Your task to perform on an android device: open app "Viber Messenger" Image 0: 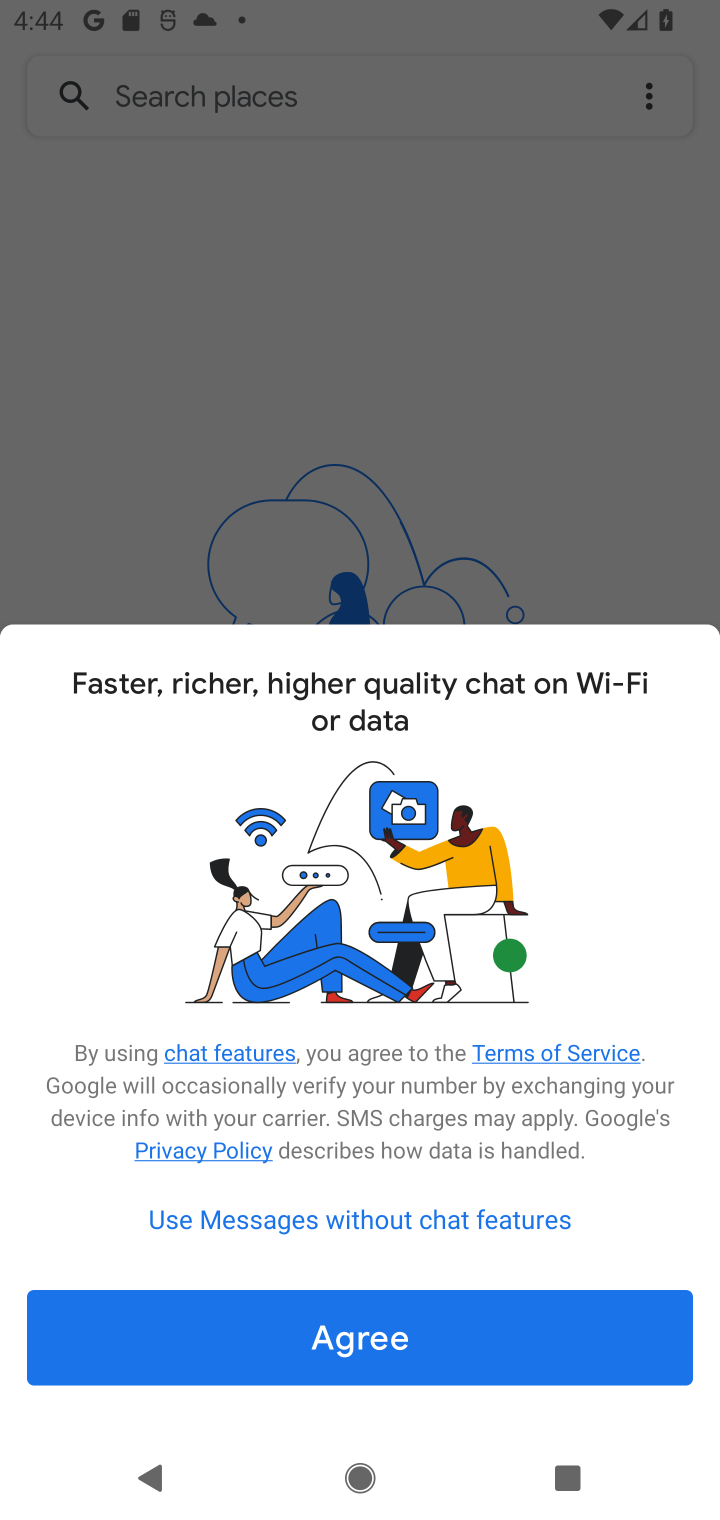
Step 0: press home button
Your task to perform on an android device: open app "Viber Messenger" Image 1: 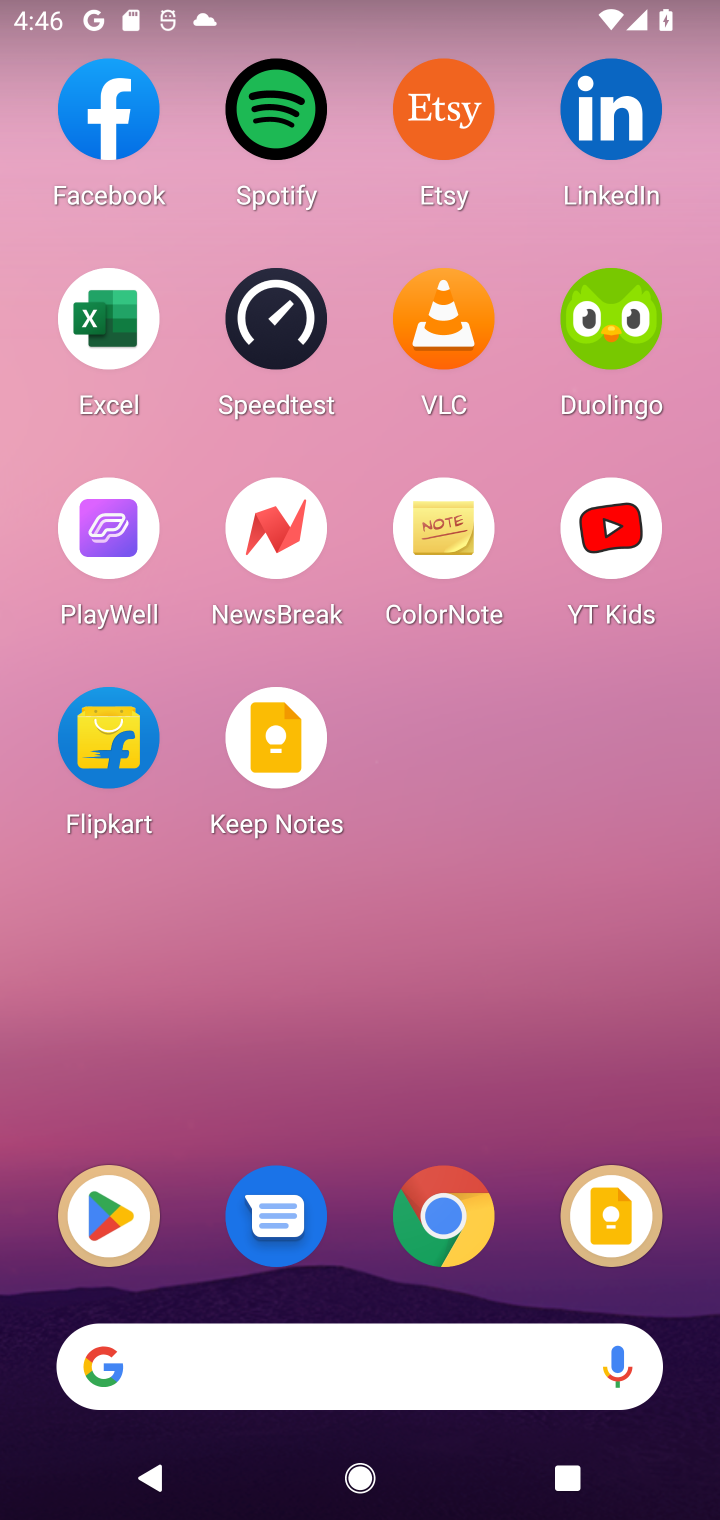
Step 1: click (73, 1242)
Your task to perform on an android device: open app "Viber Messenger" Image 2: 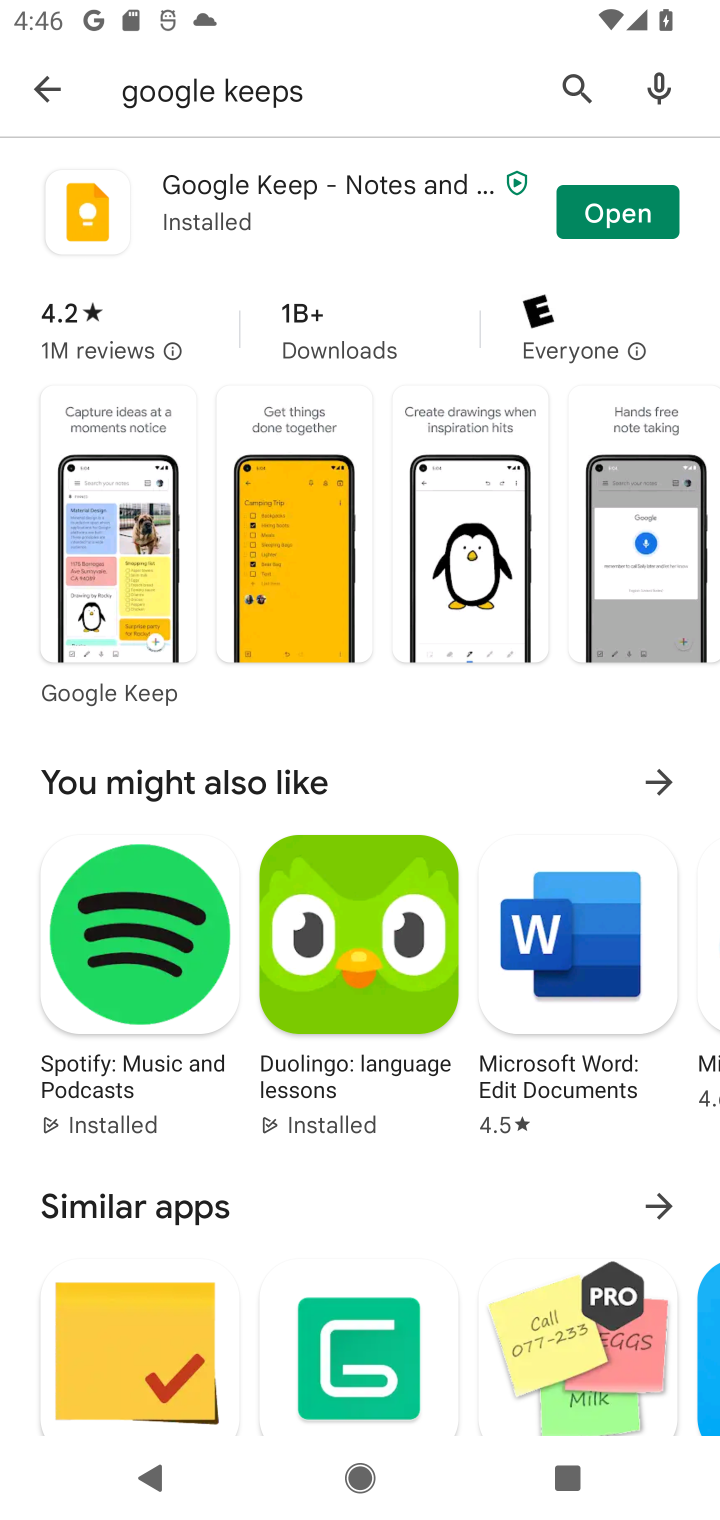
Step 2: click (551, 66)
Your task to perform on an android device: open app "Viber Messenger" Image 3: 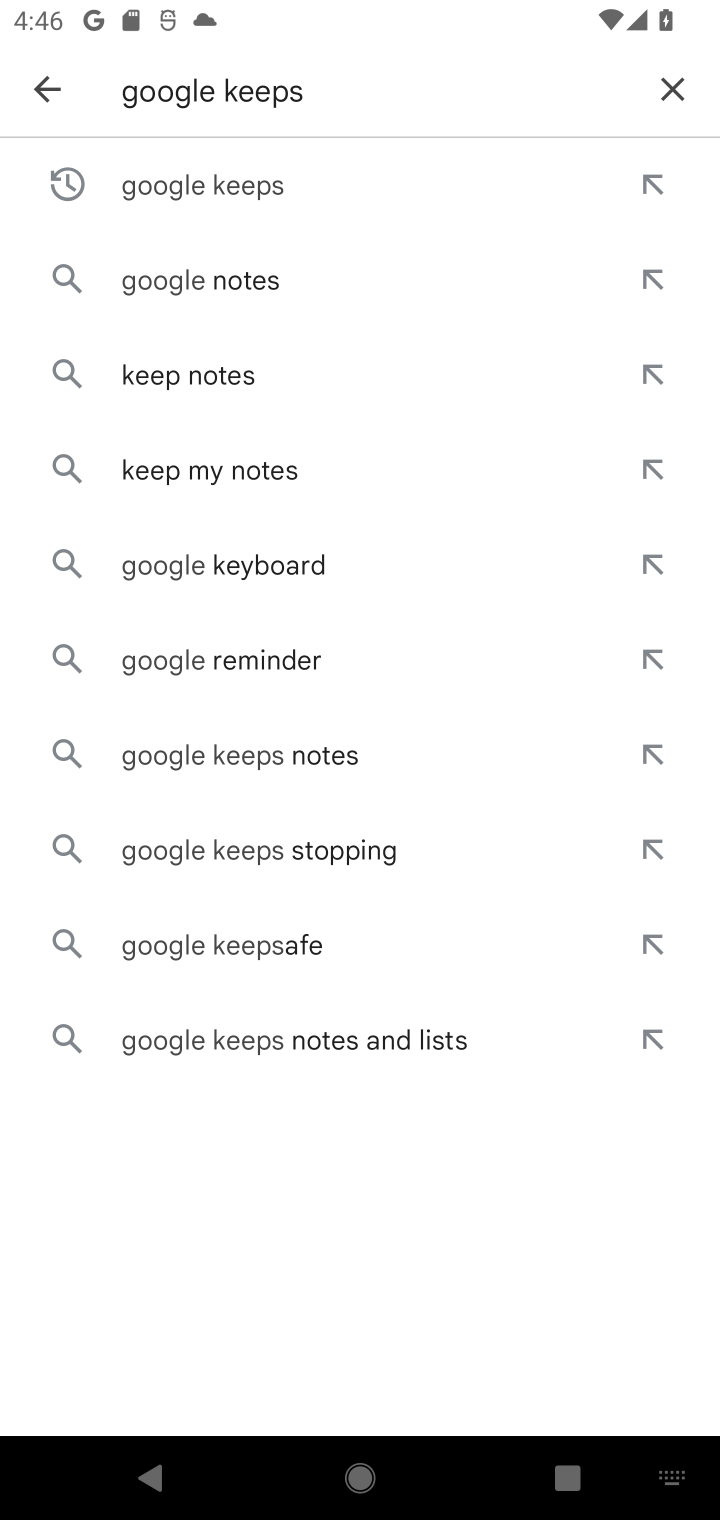
Step 3: click (677, 74)
Your task to perform on an android device: open app "Viber Messenger" Image 4: 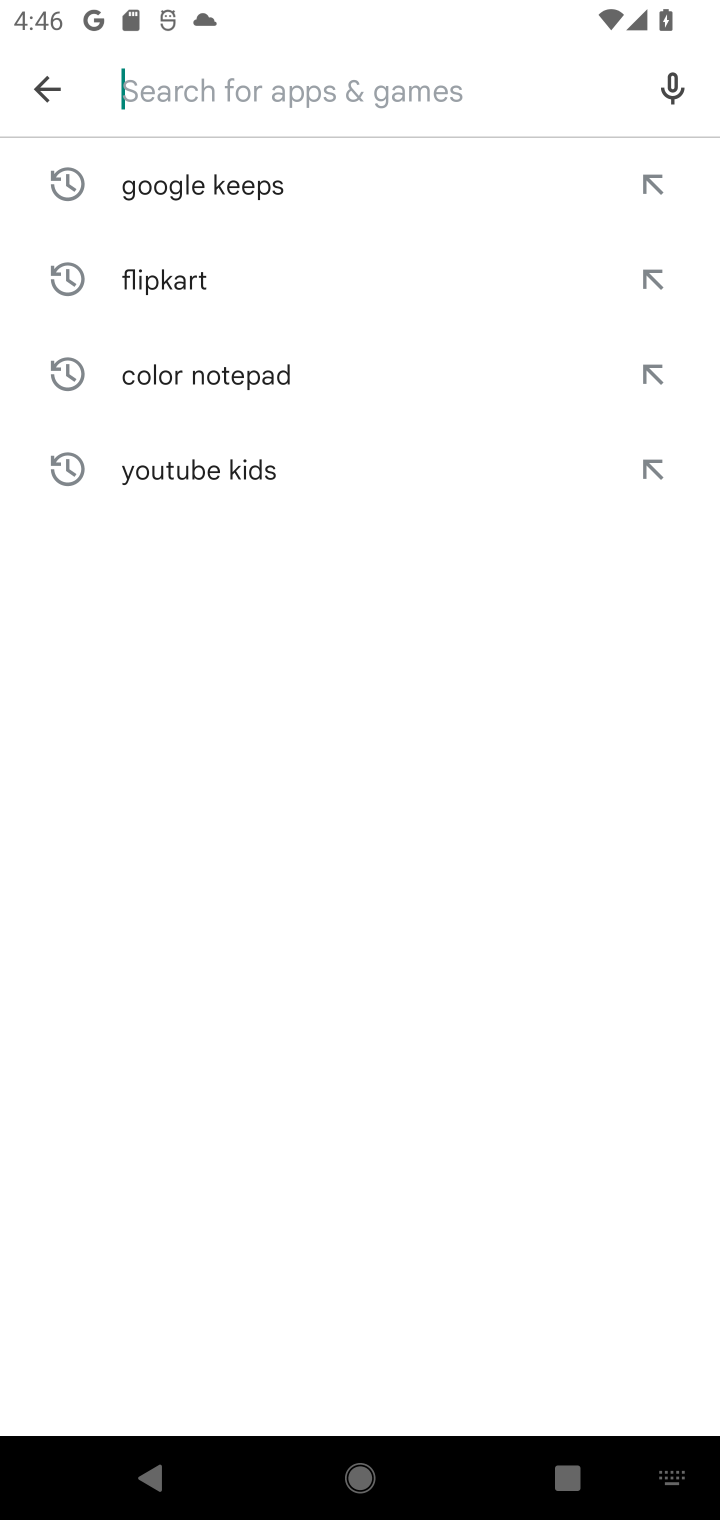
Step 4: type "viber"
Your task to perform on an android device: open app "Viber Messenger" Image 5: 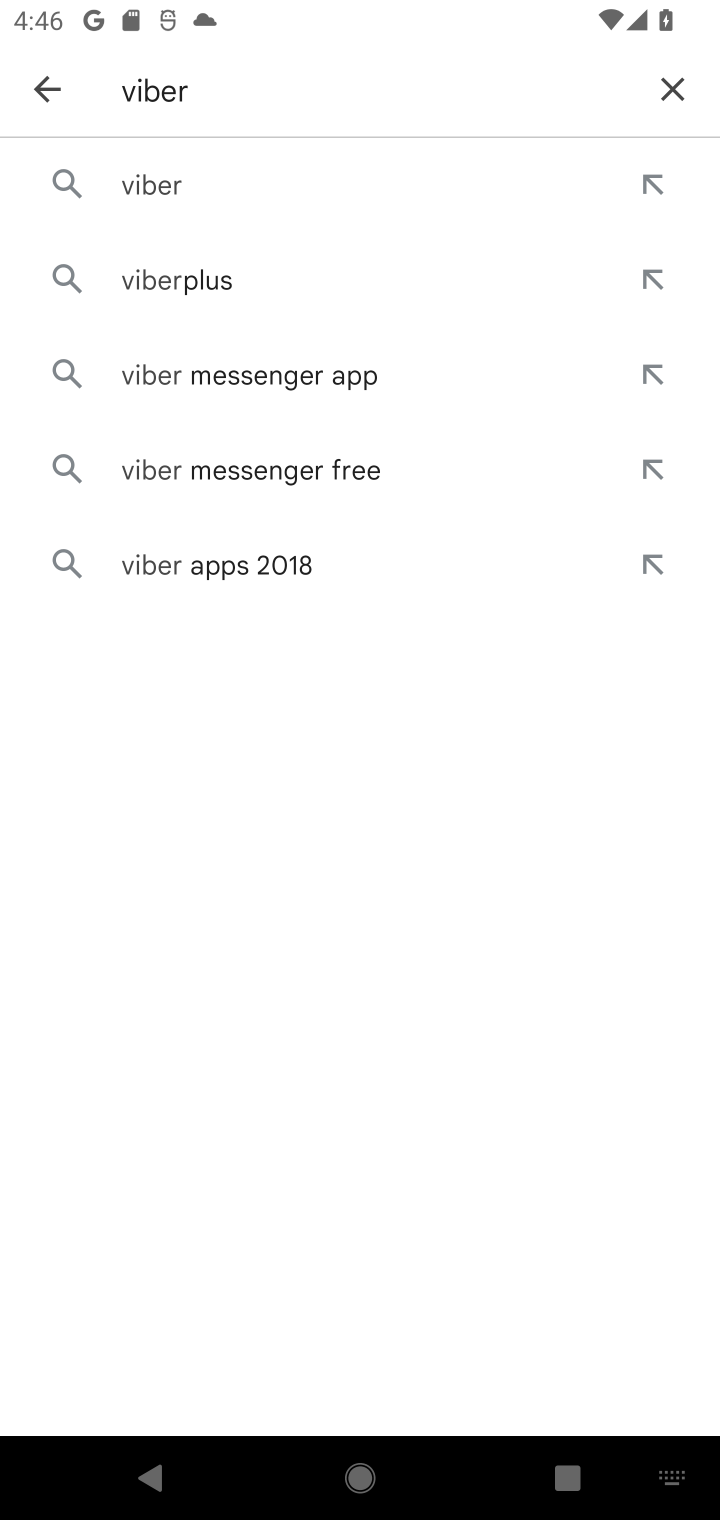
Step 5: click (438, 215)
Your task to perform on an android device: open app "Viber Messenger" Image 6: 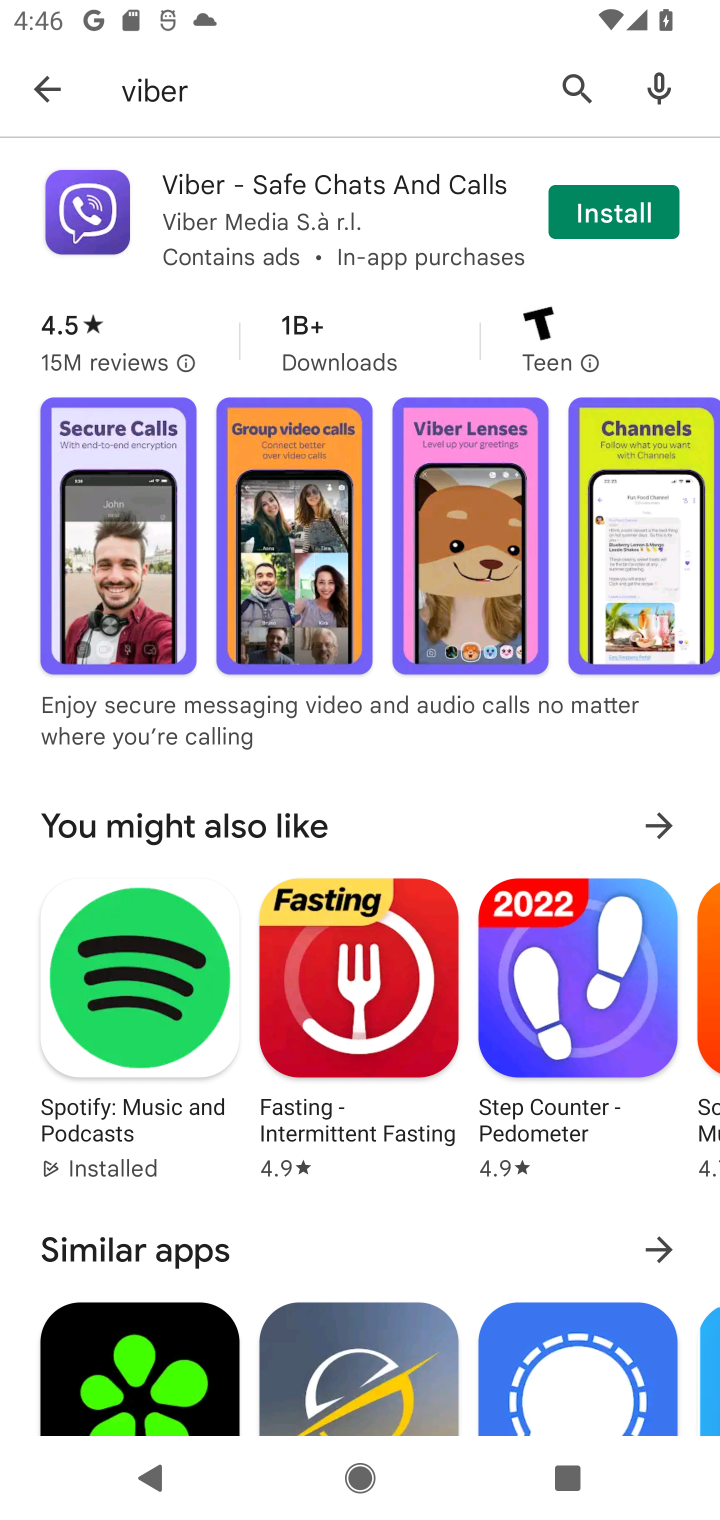
Step 6: click (601, 234)
Your task to perform on an android device: open app "Viber Messenger" Image 7: 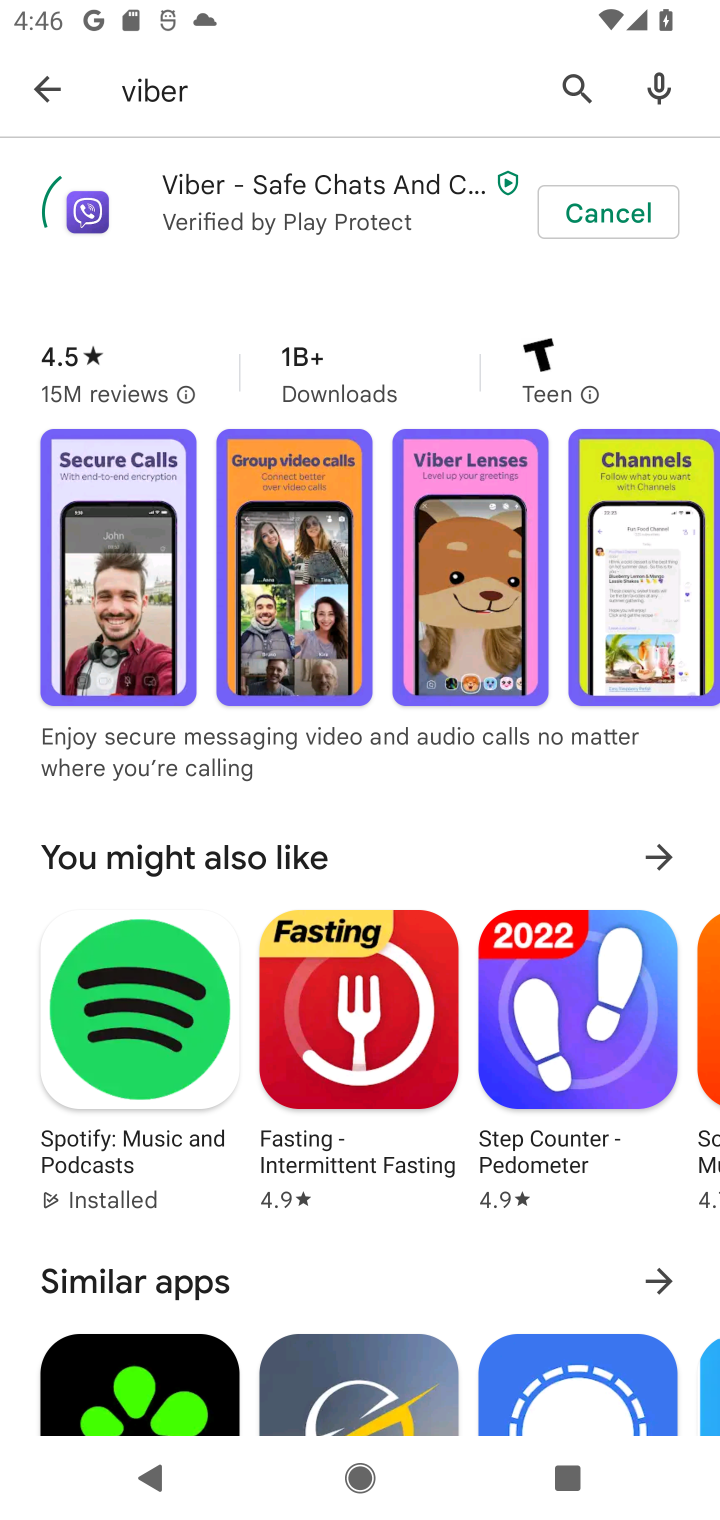
Step 7: task complete